Your task to perform on an android device: What is the recent news? Image 0: 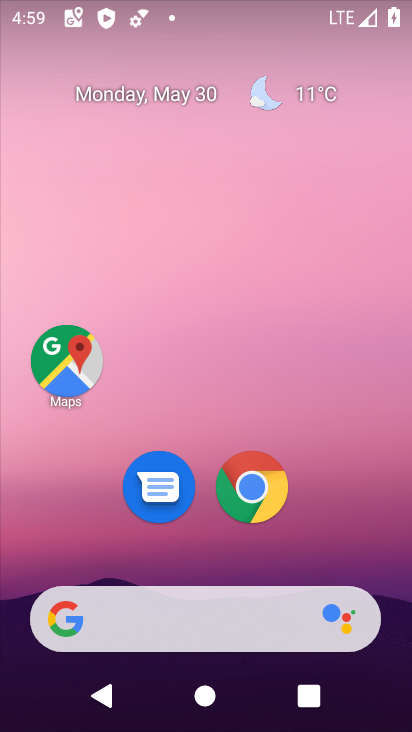
Step 0: drag from (3, 246) to (408, 287)
Your task to perform on an android device: What is the recent news? Image 1: 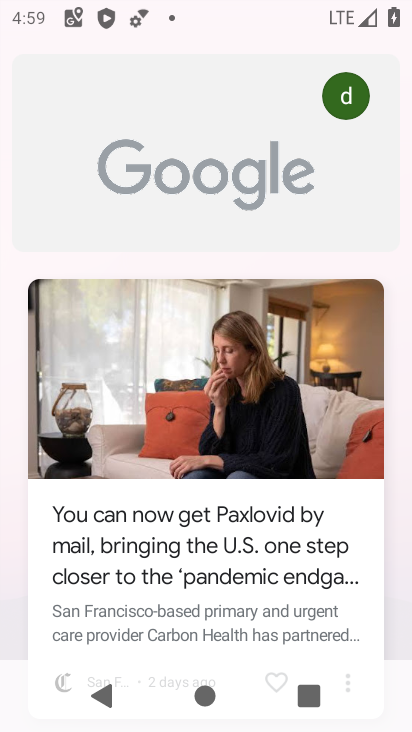
Step 1: task complete